Your task to perform on an android device: Open the Play Movies app and select the watchlist tab. Image 0: 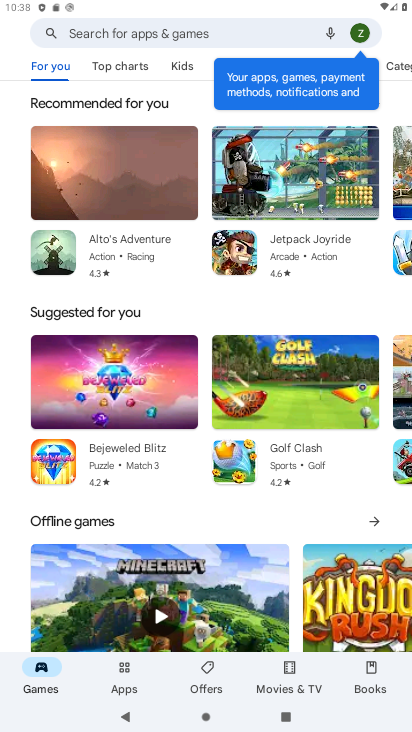
Step 0: press home button
Your task to perform on an android device: Open the Play Movies app and select the watchlist tab. Image 1: 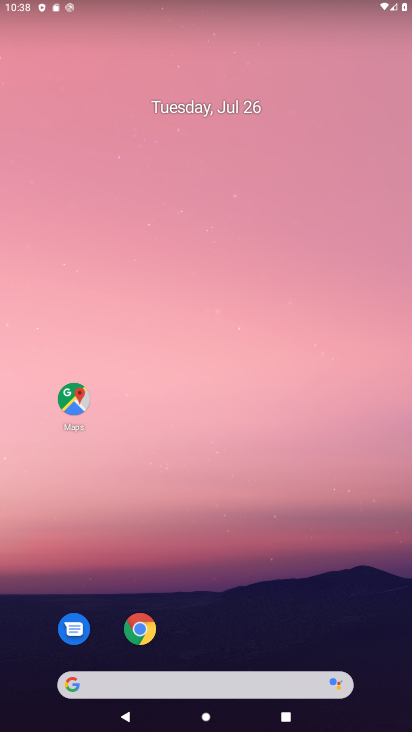
Step 1: drag from (344, 616) to (113, 39)
Your task to perform on an android device: Open the Play Movies app and select the watchlist tab. Image 2: 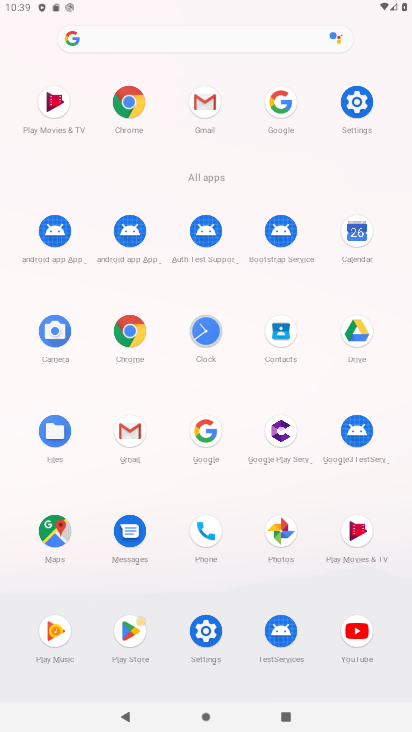
Step 2: click (355, 528)
Your task to perform on an android device: Open the Play Movies app and select the watchlist tab. Image 3: 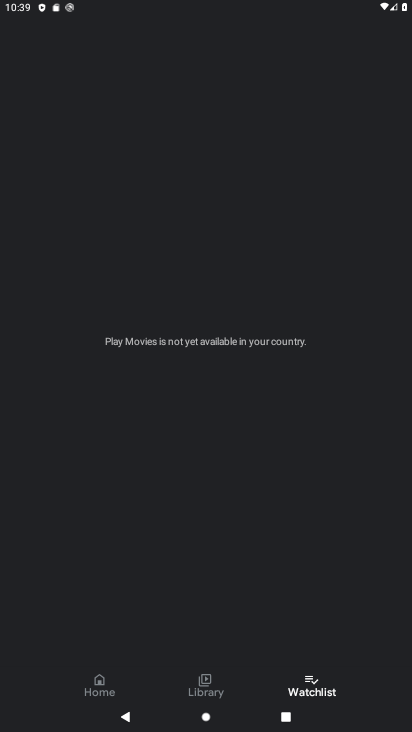
Step 3: task complete